Your task to perform on an android device: Open sound settings Image 0: 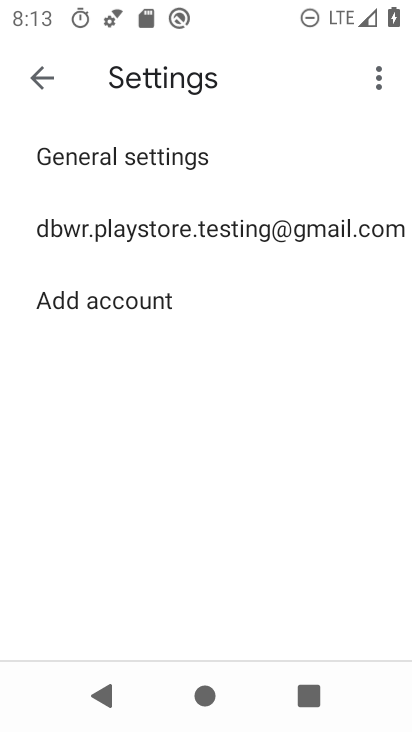
Step 0: press home button
Your task to perform on an android device: Open sound settings Image 1: 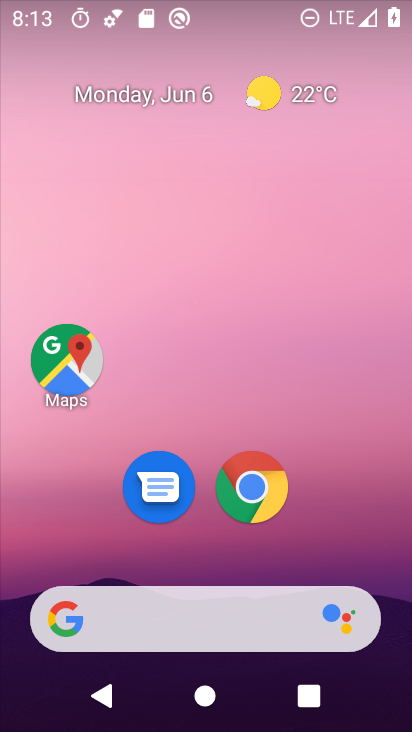
Step 1: drag from (394, 634) to (203, 52)
Your task to perform on an android device: Open sound settings Image 2: 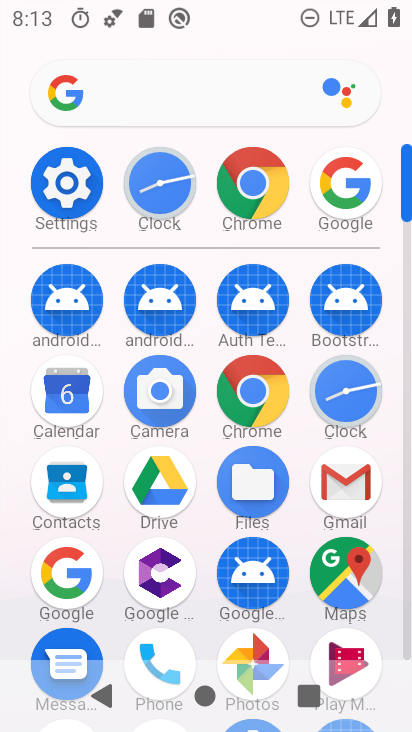
Step 2: click (30, 175)
Your task to perform on an android device: Open sound settings Image 3: 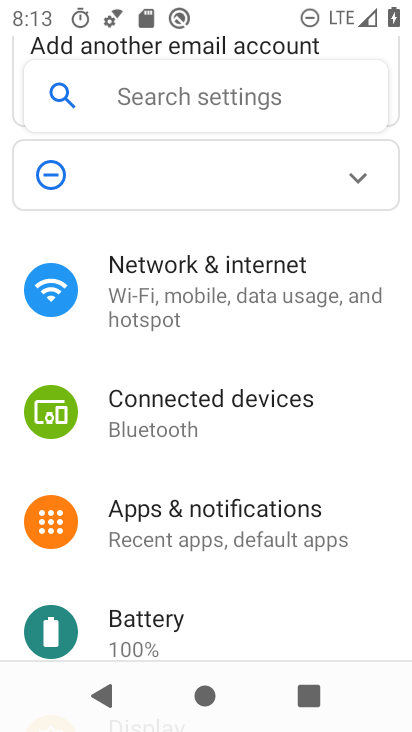
Step 3: drag from (180, 602) to (169, 111)
Your task to perform on an android device: Open sound settings Image 4: 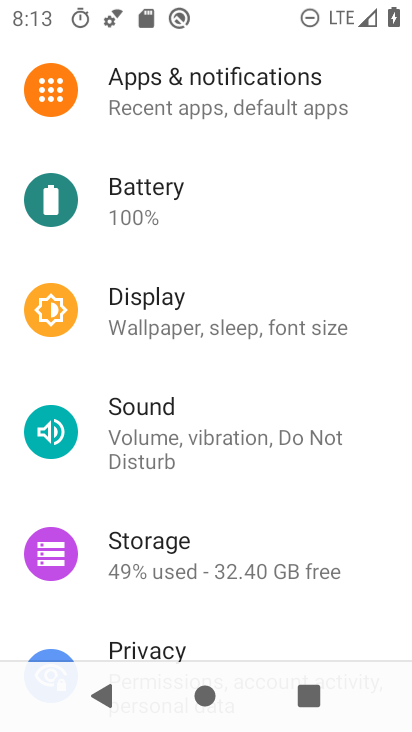
Step 4: click (165, 431)
Your task to perform on an android device: Open sound settings Image 5: 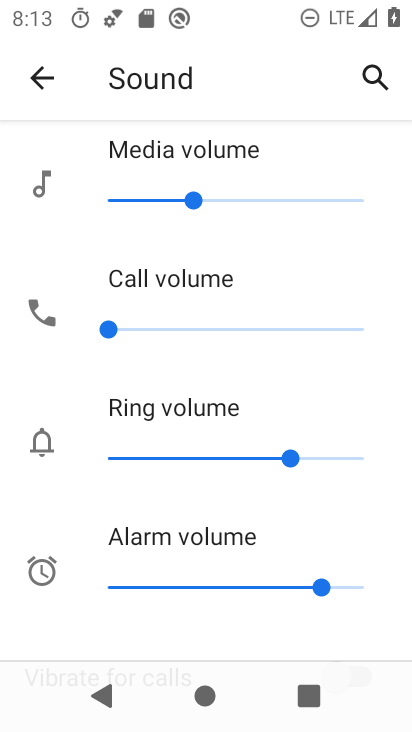
Step 5: task complete